Your task to perform on an android device: What's on my calendar today? Image 0: 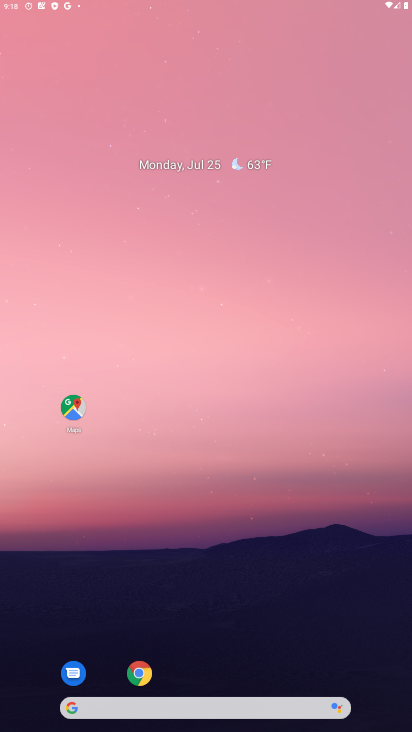
Step 0: click (284, 275)
Your task to perform on an android device: What's on my calendar today? Image 1: 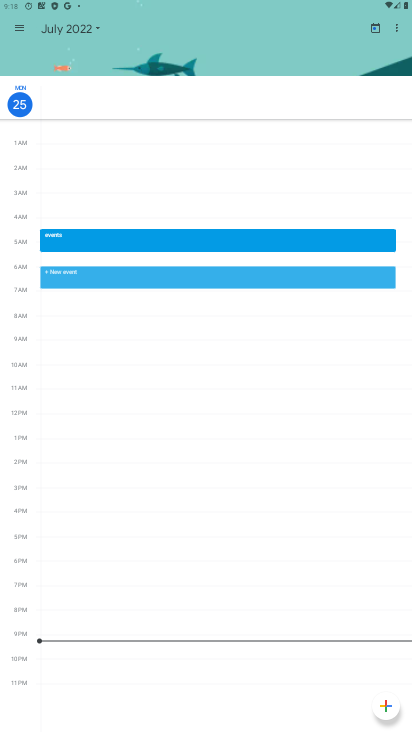
Step 1: drag from (234, 660) to (242, 345)
Your task to perform on an android device: What's on my calendar today? Image 2: 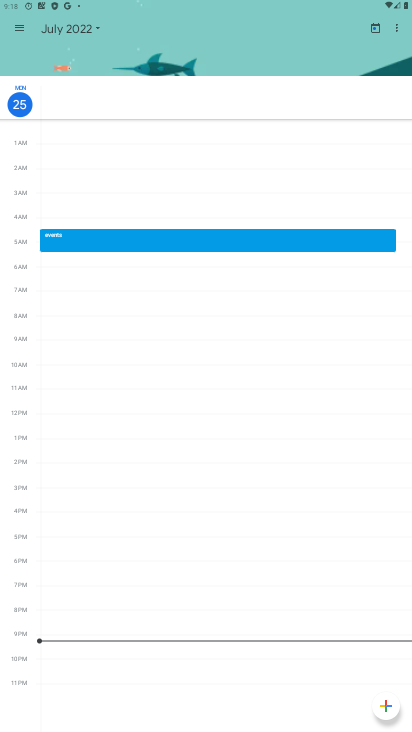
Step 2: drag from (208, 570) to (258, 216)
Your task to perform on an android device: What's on my calendar today? Image 3: 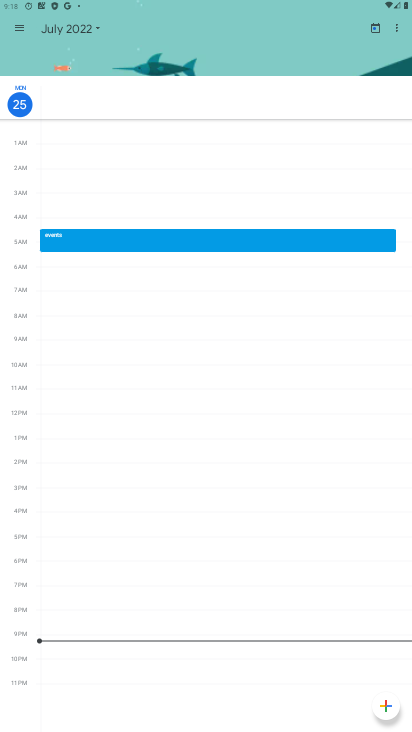
Step 3: press home button
Your task to perform on an android device: What's on my calendar today? Image 4: 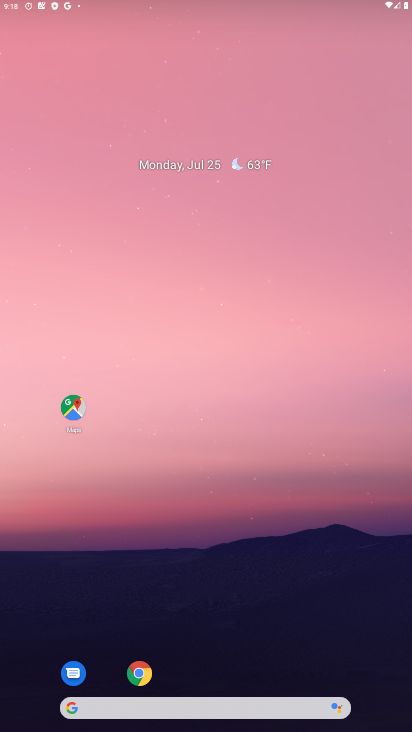
Step 4: drag from (201, 642) to (257, 193)
Your task to perform on an android device: What's on my calendar today? Image 5: 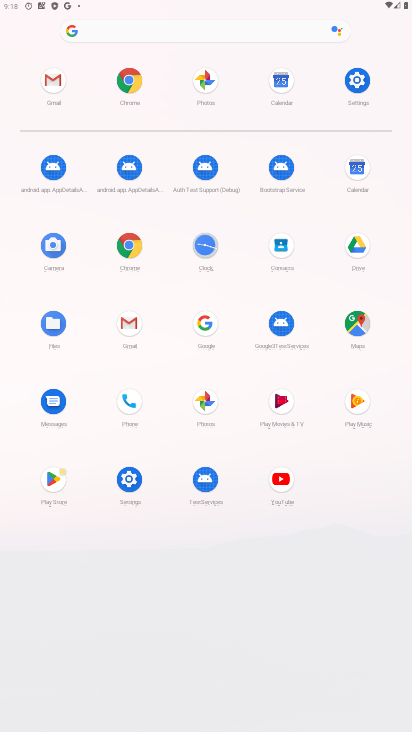
Step 5: click (358, 163)
Your task to perform on an android device: What's on my calendar today? Image 6: 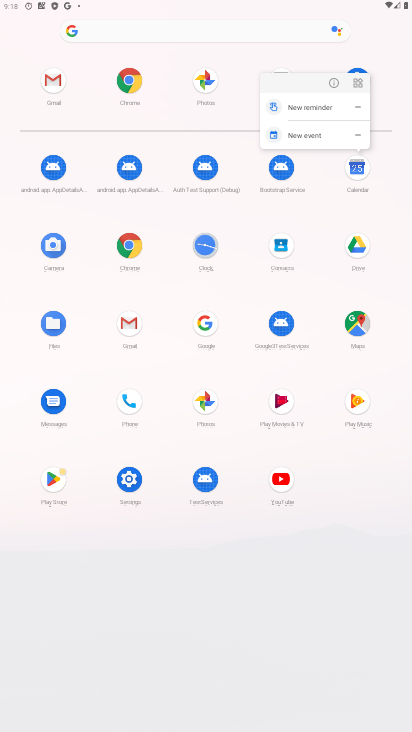
Step 6: click (327, 79)
Your task to perform on an android device: What's on my calendar today? Image 7: 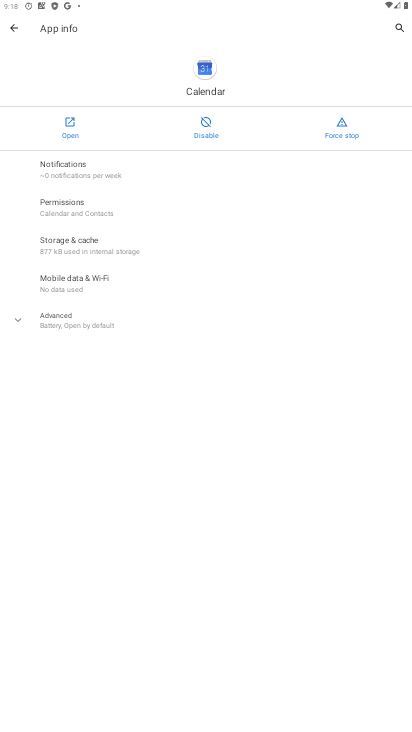
Step 7: click (35, 126)
Your task to perform on an android device: What's on my calendar today? Image 8: 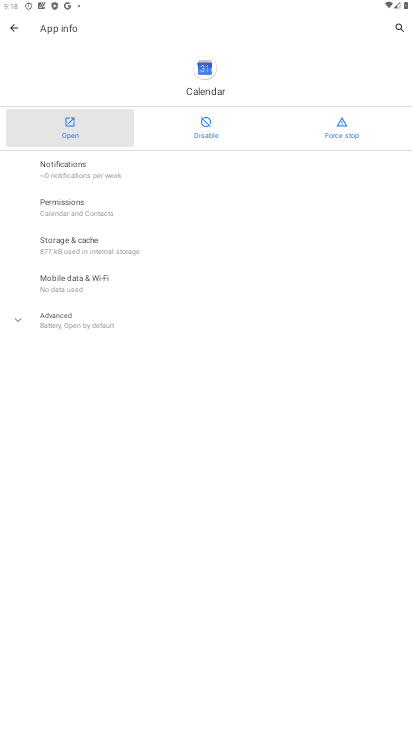
Step 8: click (64, 130)
Your task to perform on an android device: What's on my calendar today? Image 9: 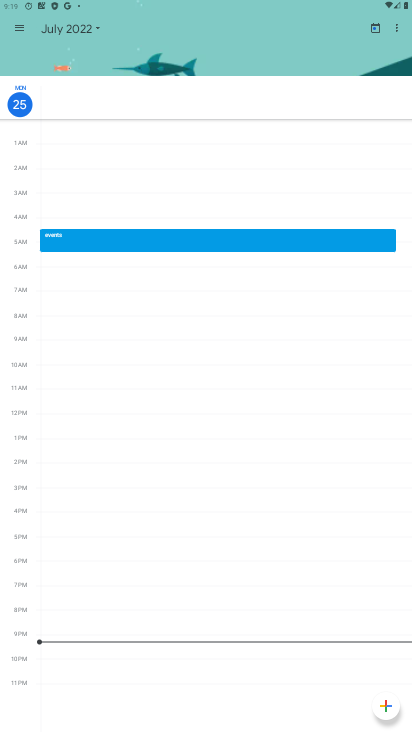
Step 9: drag from (130, 540) to (213, 246)
Your task to perform on an android device: What's on my calendar today? Image 10: 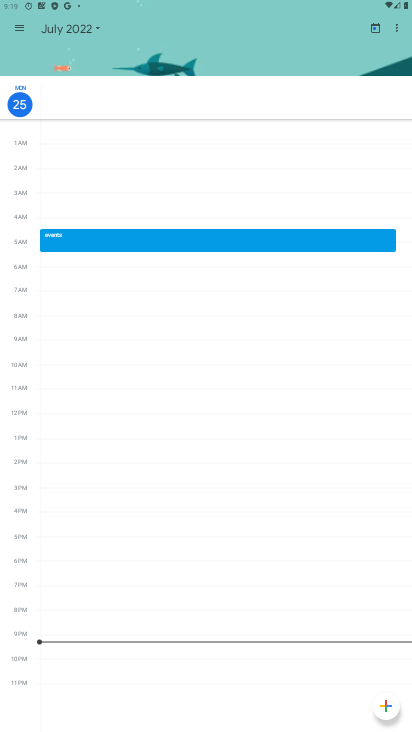
Step 10: click (78, 24)
Your task to perform on an android device: What's on my calendar today? Image 11: 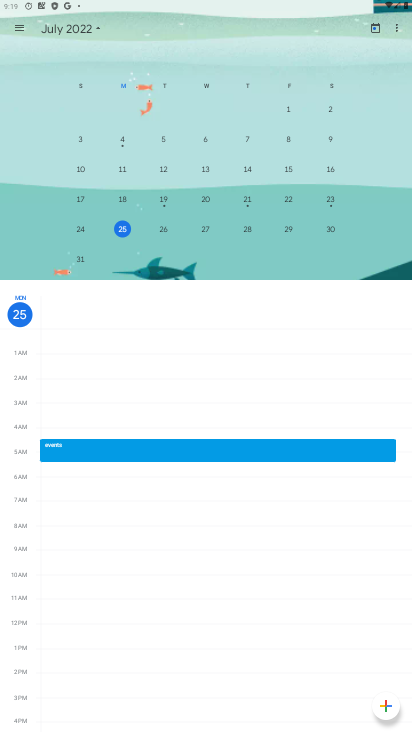
Step 11: click (289, 230)
Your task to perform on an android device: What's on my calendar today? Image 12: 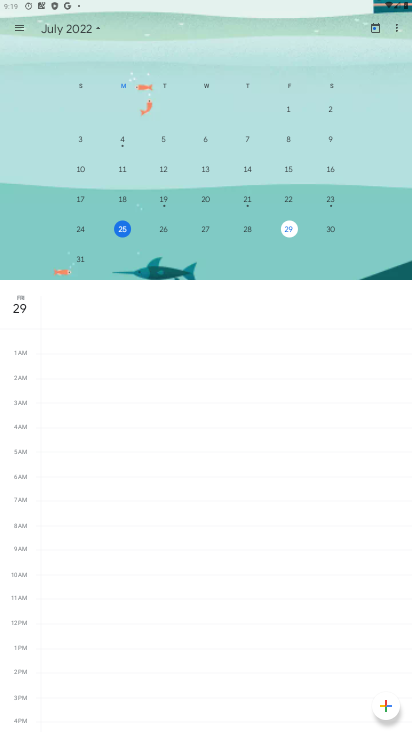
Step 12: click (121, 229)
Your task to perform on an android device: What's on my calendar today? Image 13: 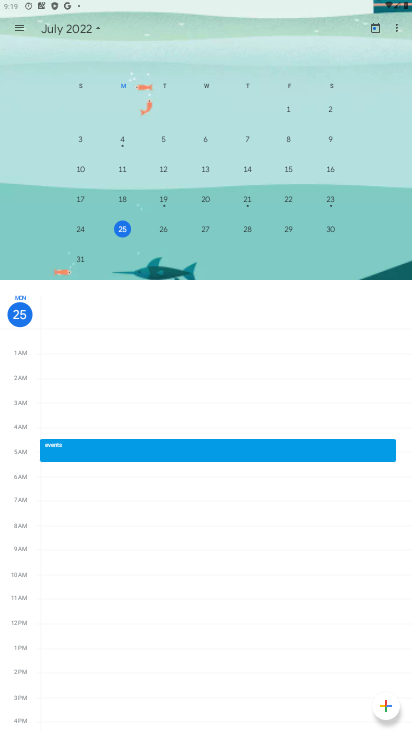
Step 13: task complete